Your task to perform on an android device: Open calendar and show me the second week of next month Image 0: 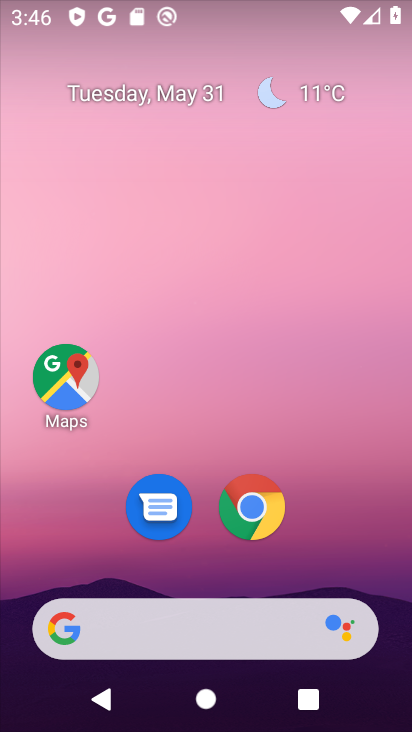
Step 0: drag from (330, 540) to (326, 67)
Your task to perform on an android device: Open calendar and show me the second week of next month Image 1: 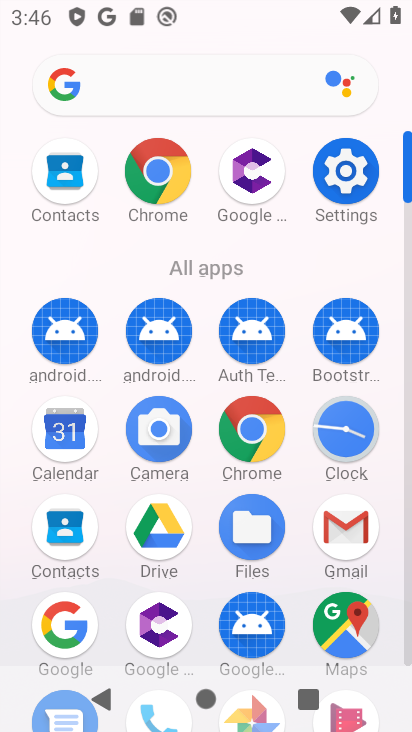
Step 1: click (67, 431)
Your task to perform on an android device: Open calendar and show me the second week of next month Image 2: 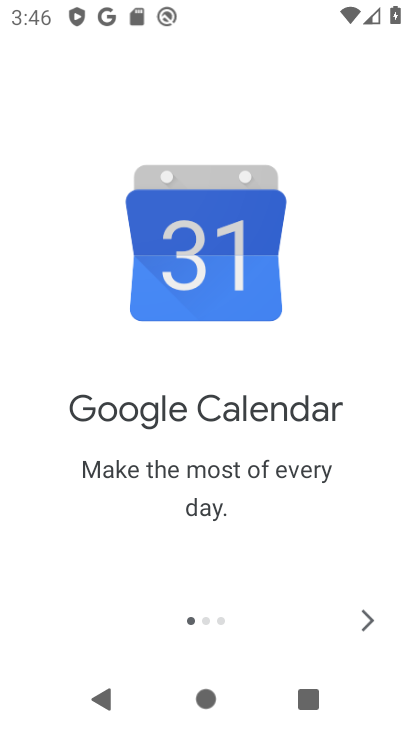
Step 2: click (358, 632)
Your task to perform on an android device: Open calendar and show me the second week of next month Image 3: 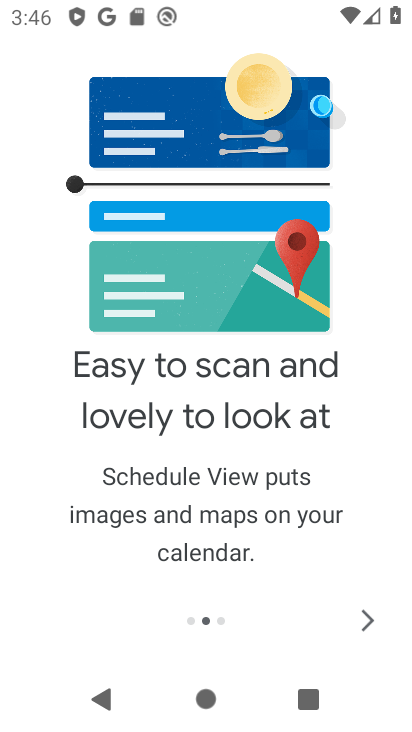
Step 3: click (362, 625)
Your task to perform on an android device: Open calendar and show me the second week of next month Image 4: 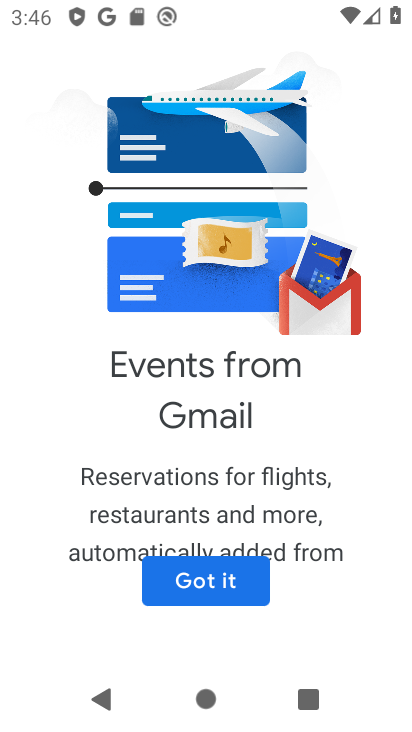
Step 4: click (188, 589)
Your task to perform on an android device: Open calendar and show me the second week of next month Image 5: 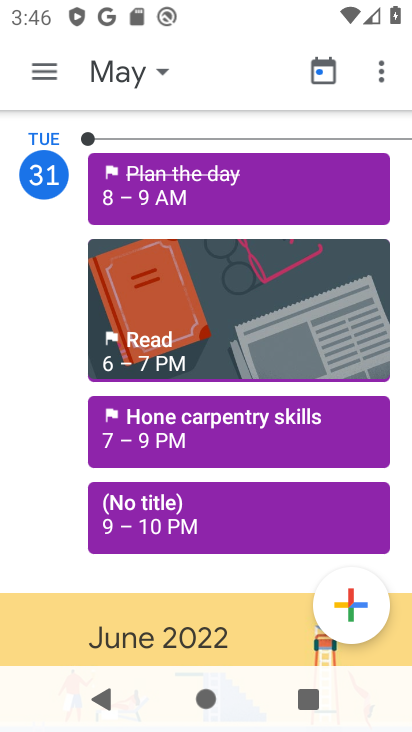
Step 5: click (119, 62)
Your task to perform on an android device: Open calendar and show me the second week of next month Image 6: 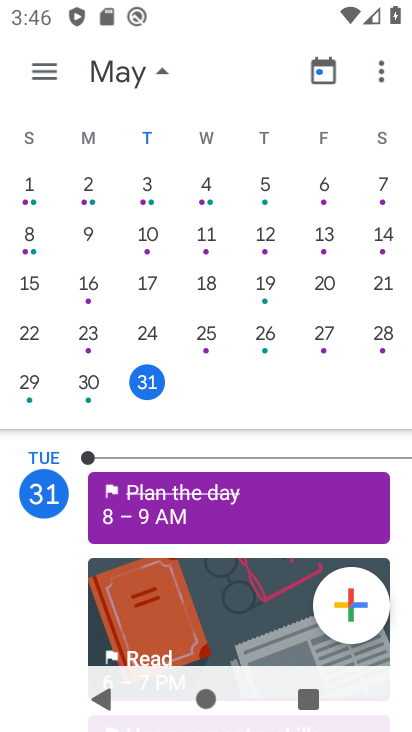
Step 6: drag from (363, 390) to (0, 317)
Your task to perform on an android device: Open calendar and show me the second week of next month Image 7: 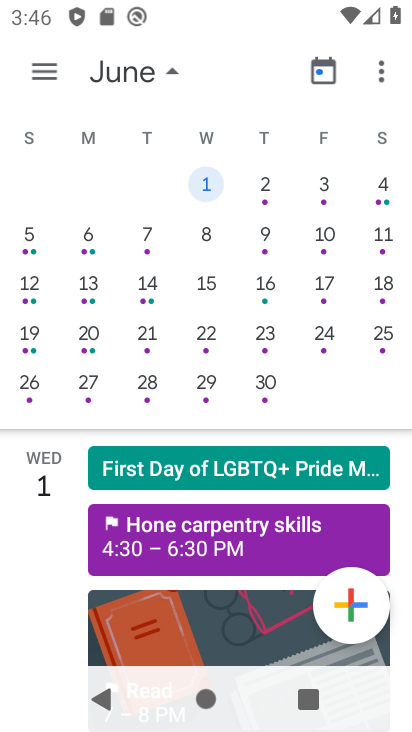
Step 7: click (276, 234)
Your task to perform on an android device: Open calendar and show me the second week of next month Image 8: 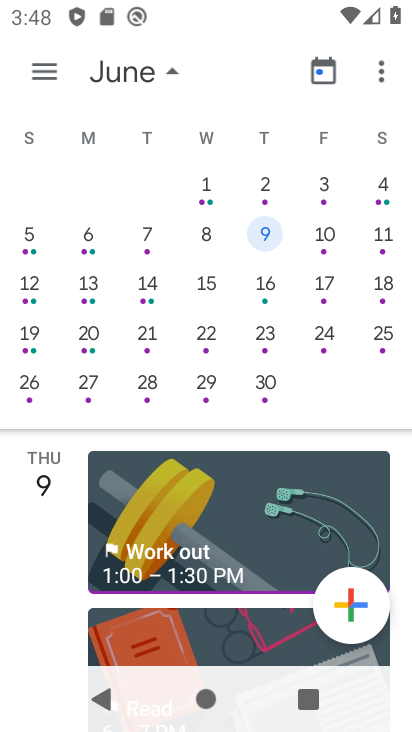
Step 8: task complete